Your task to perform on an android device: Check out the new ikea catalog. Image 0: 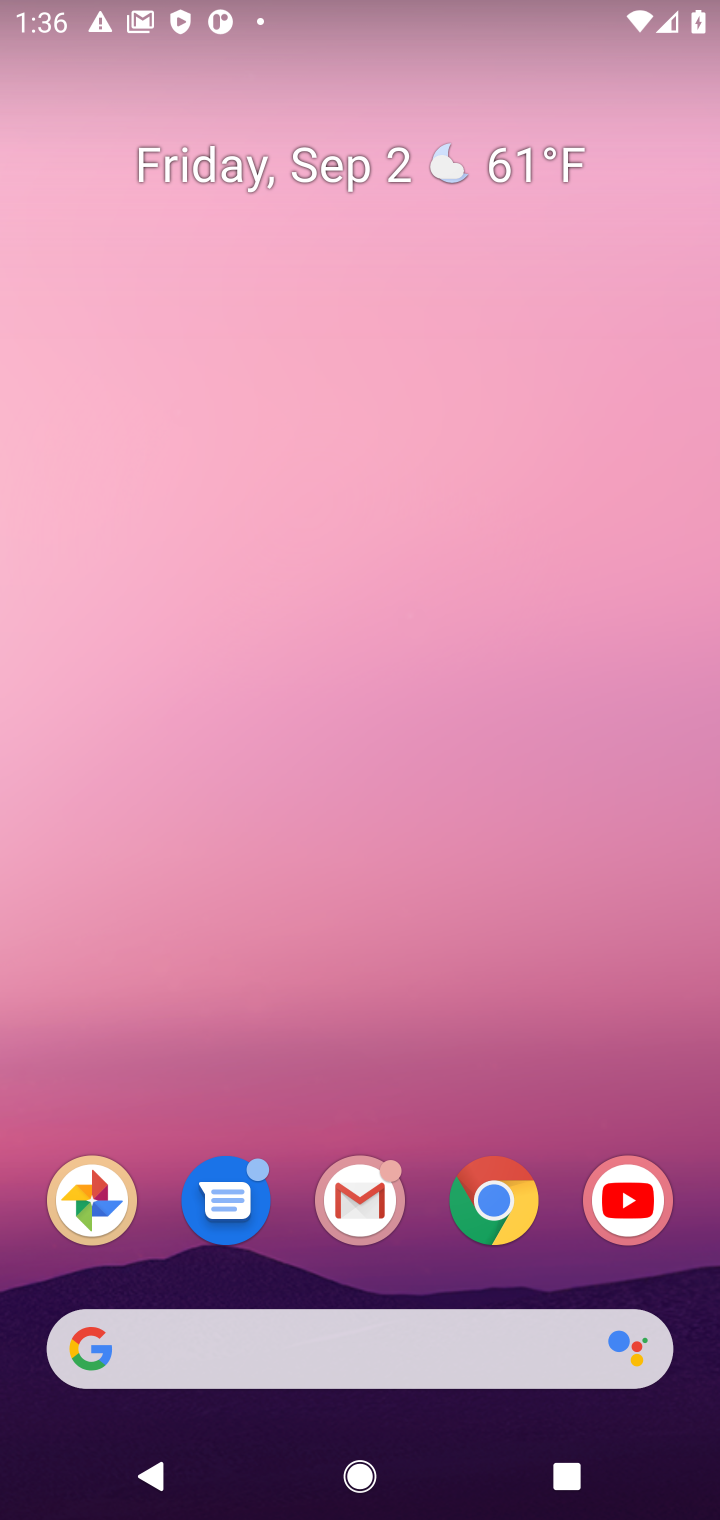
Step 0: click (493, 1200)
Your task to perform on an android device: Check out the new ikea catalog. Image 1: 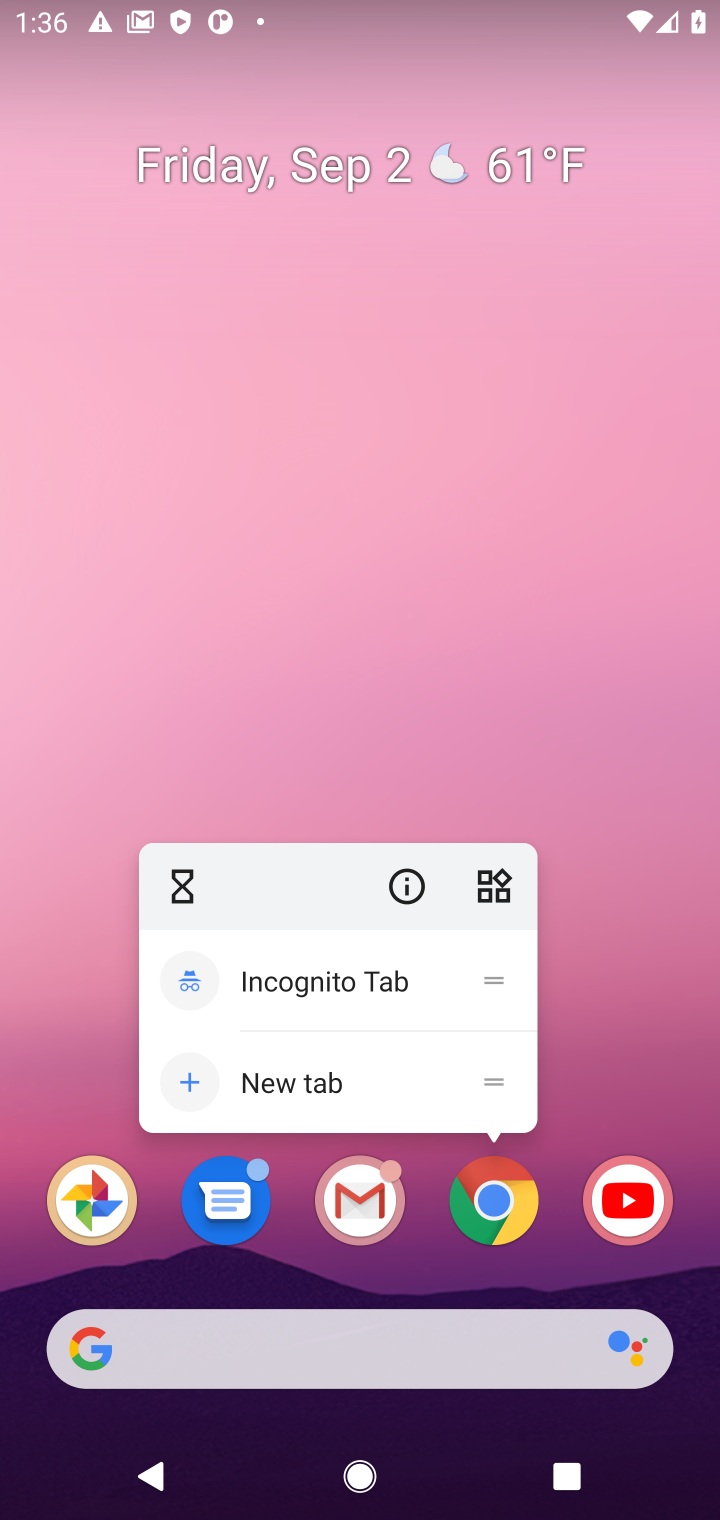
Step 1: click (495, 1207)
Your task to perform on an android device: Check out the new ikea catalog. Image 2: 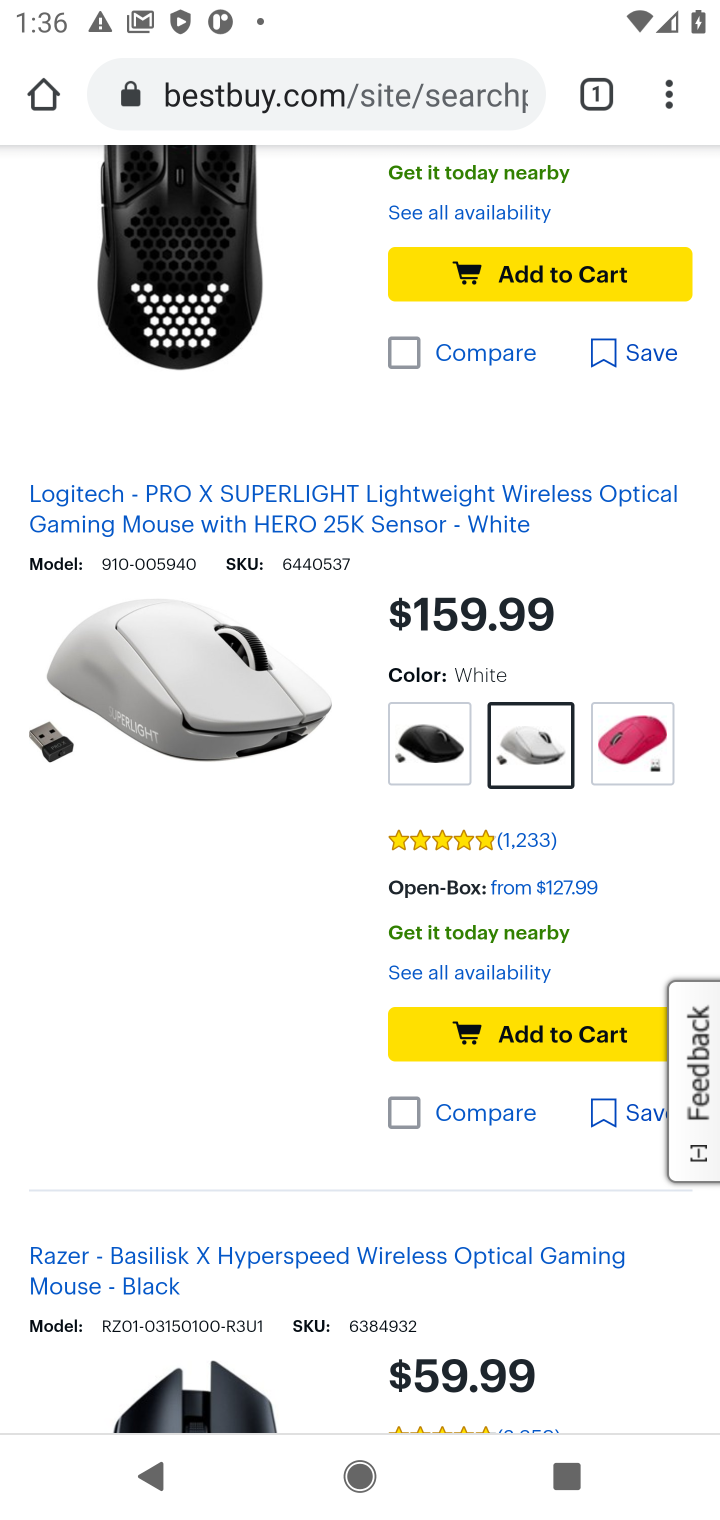
Step 2: click (385, 91)
Your task to perform on an android device: Check out the new ikea catalog. Image 3: 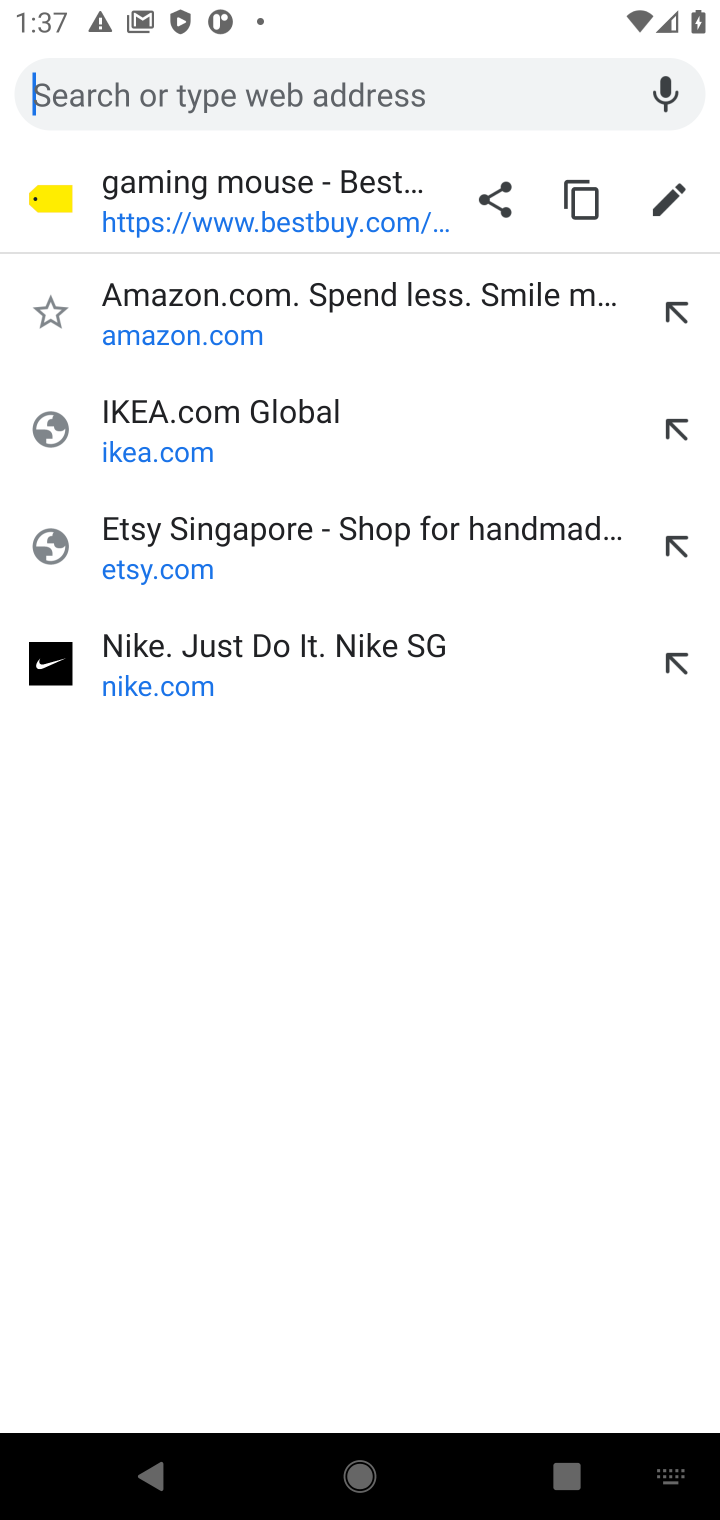
Step 3: type "new ikea catalog"
Your task to perform on an android device: Check out the new ikea catalog. Image 4: 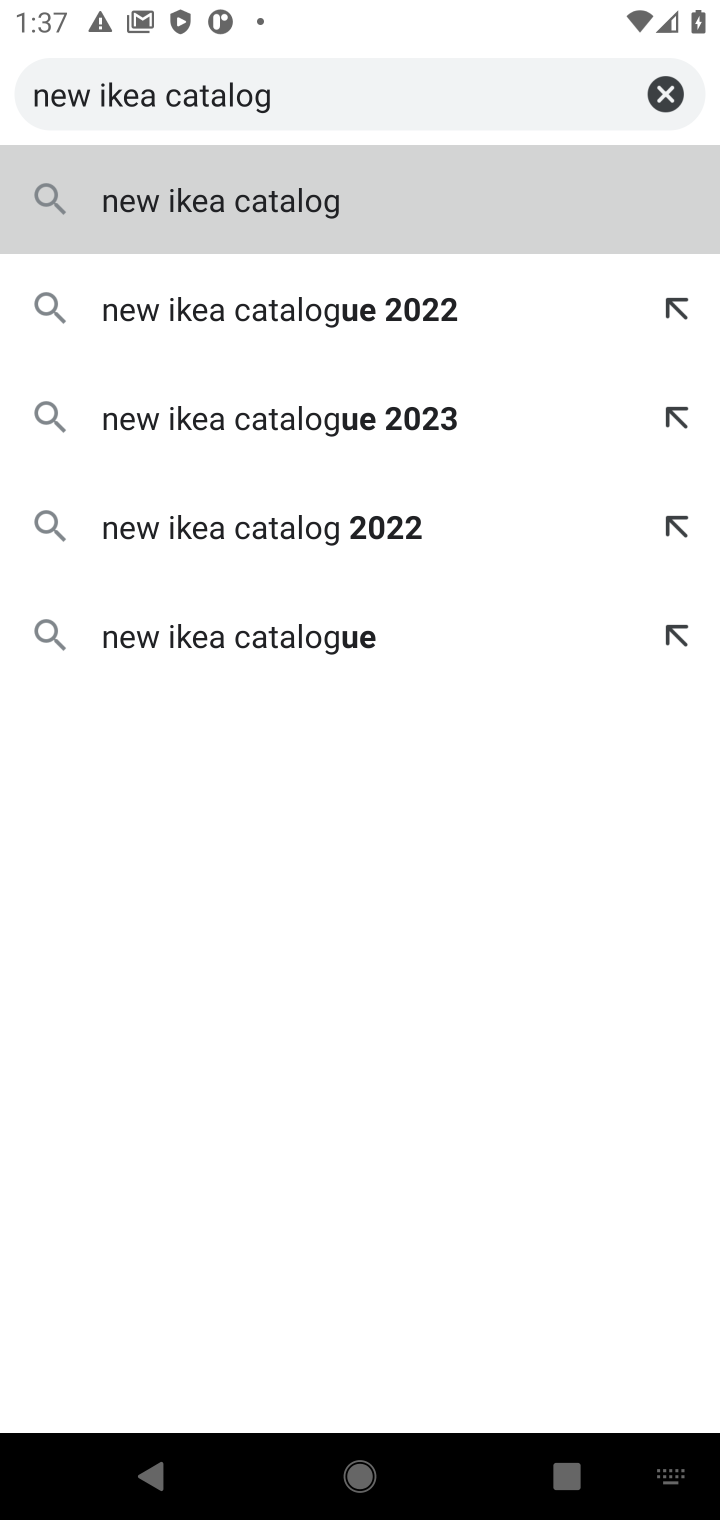
Step 4: press enter
Your task to perform on an android device: Check out the new ikea catalog. Image 5: 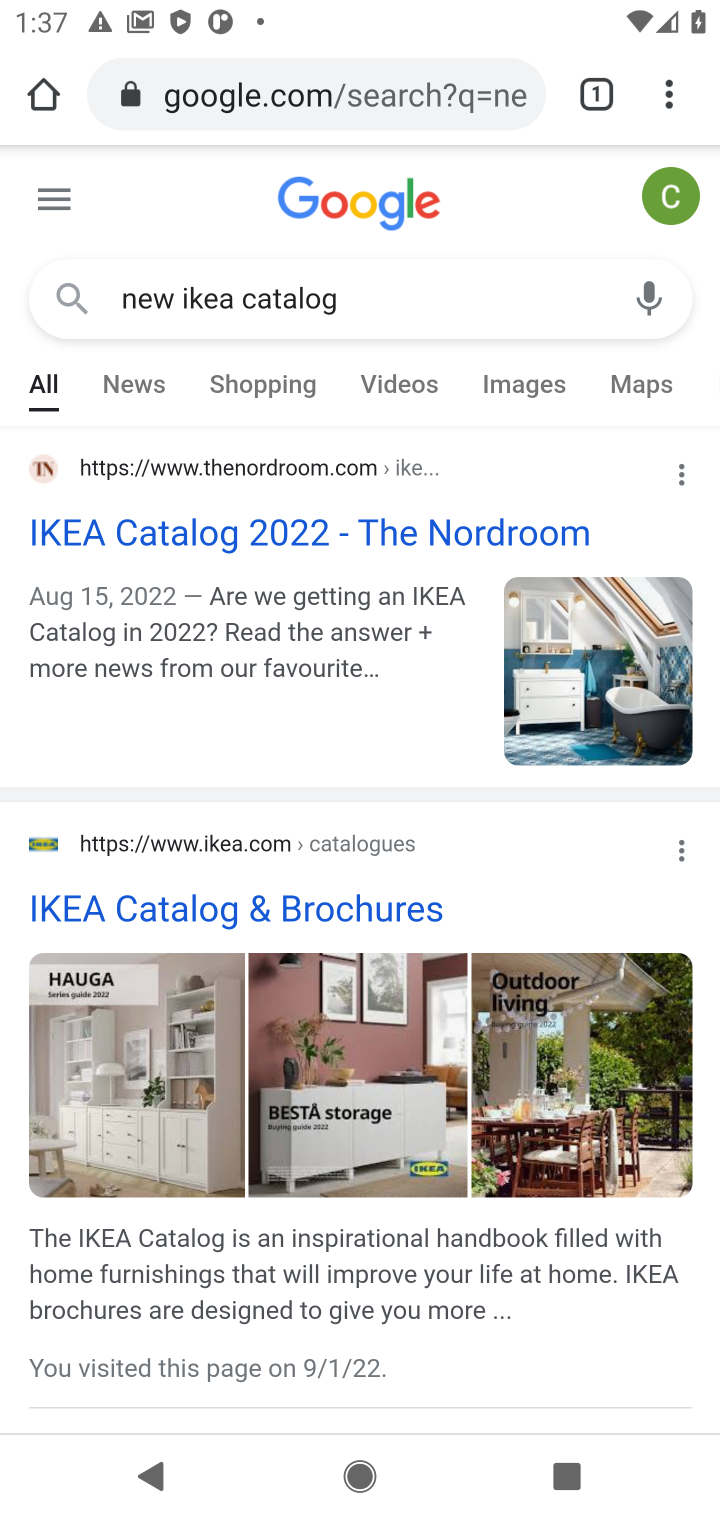
Step 5: click (360, 534)
Your task to perform on an android device: Check out the new ikea catalog. Image 6: 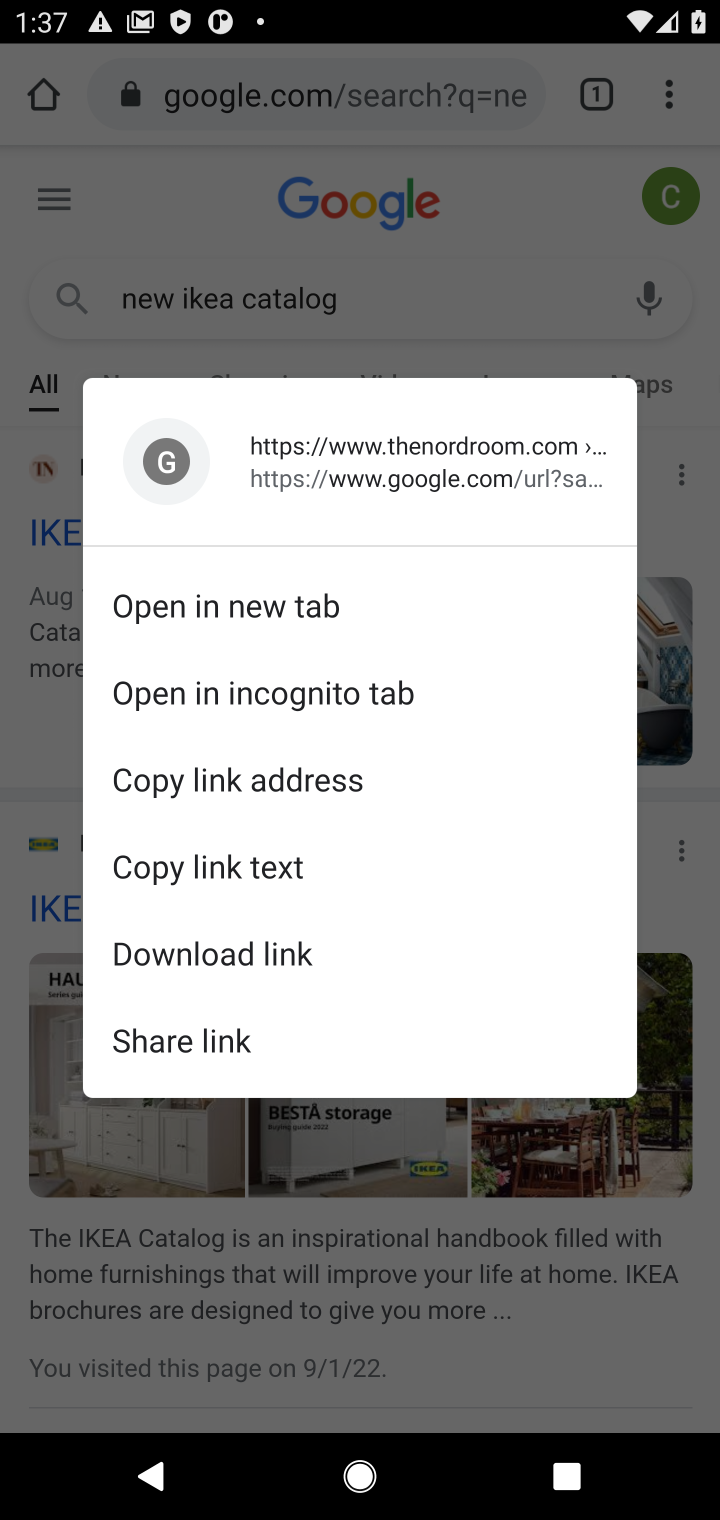
Step 6: click (33, 759)
Your task to perform on an android device: Check out the new ikea catalog. Image 7: 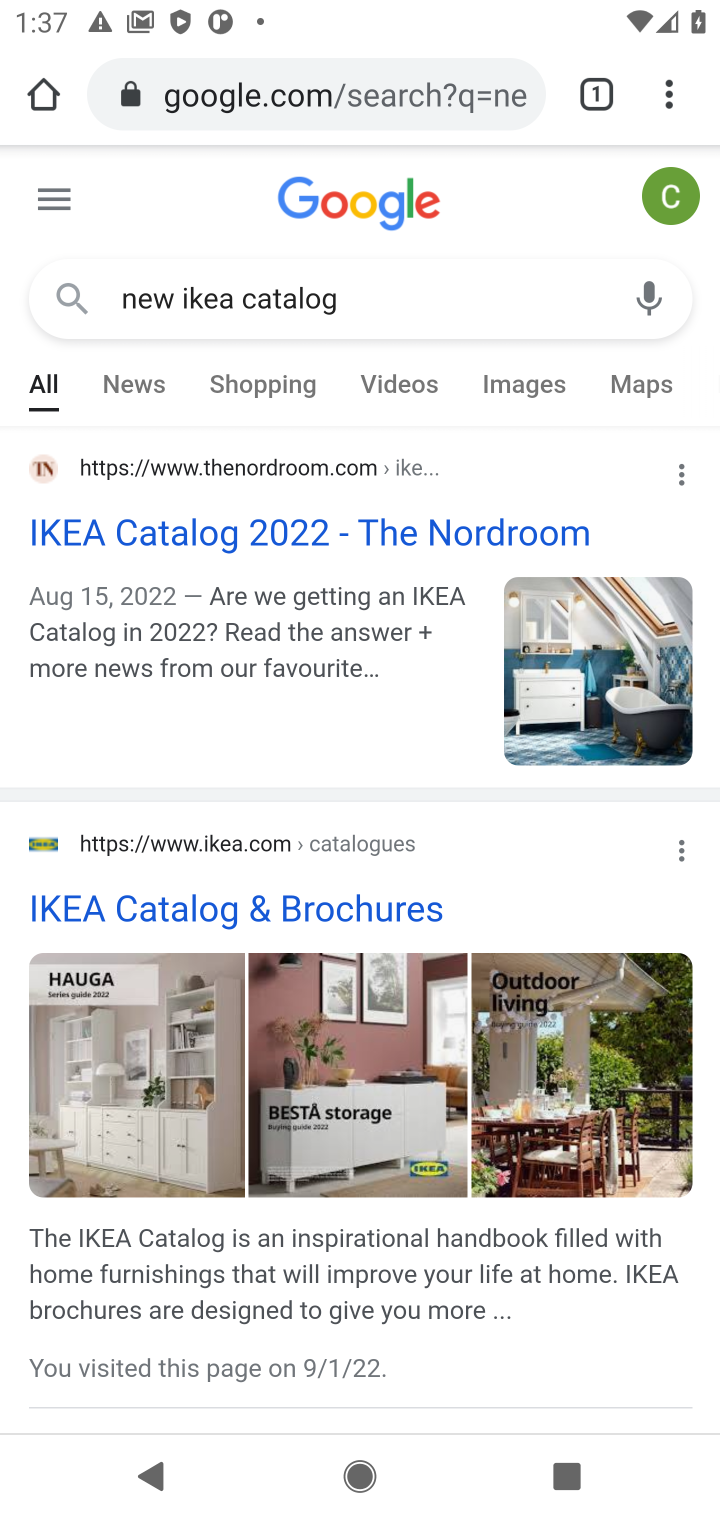
Step 7: click (158, 532)
Your task to perform on an android device: Check out the new ikea catalog. Image 8: 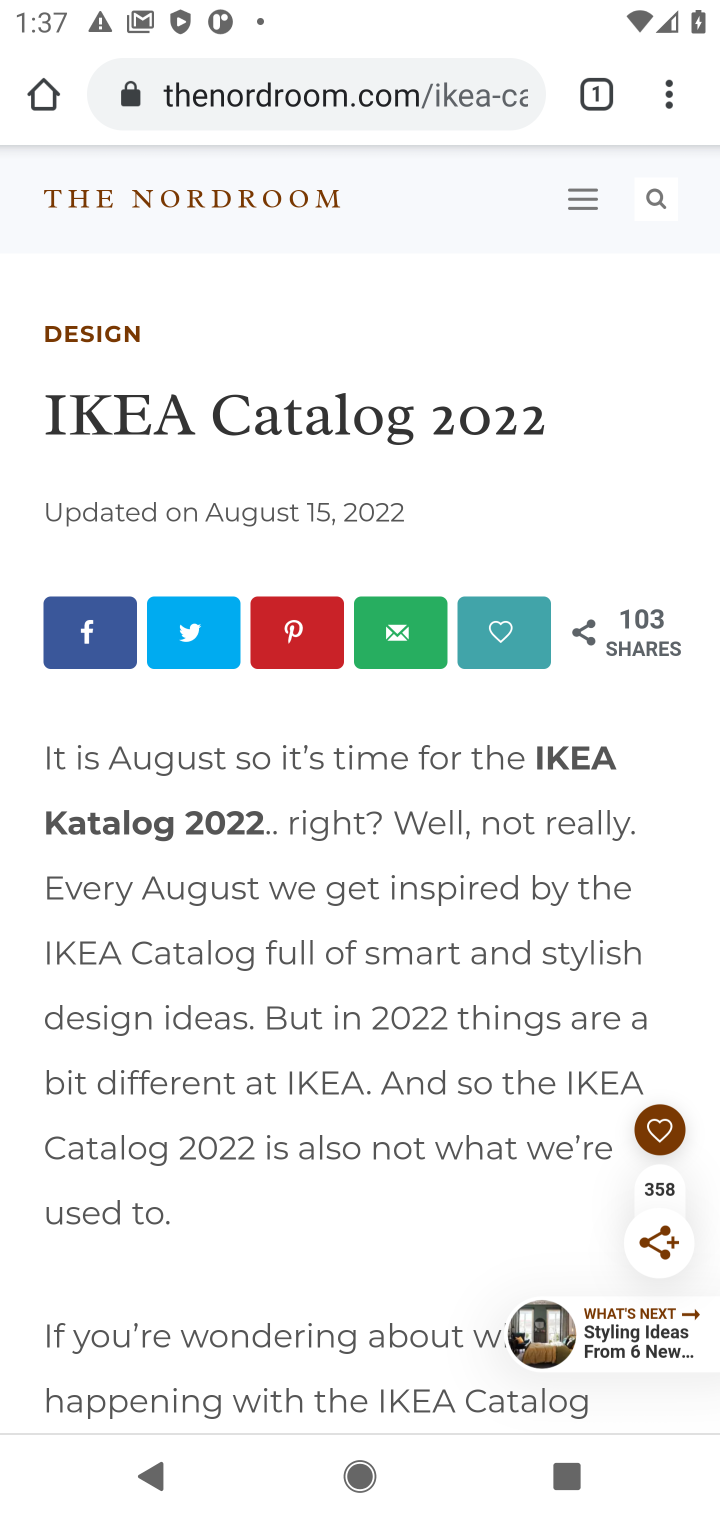
Step 8: task complete